Your task to perform on an android device: check android version Image 0: 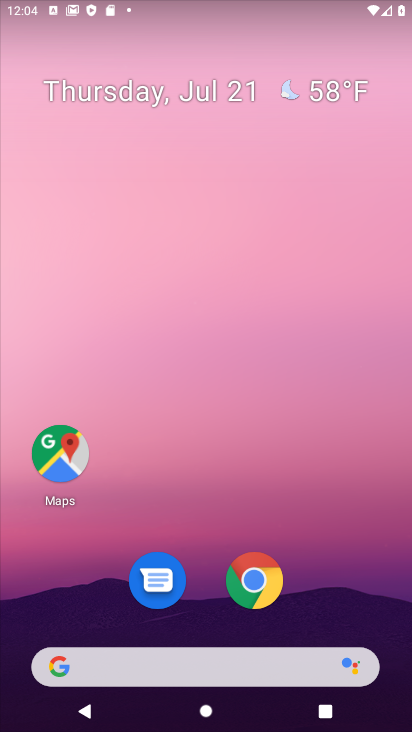
Step 0: drag from (336, 607) to (246, 1)
Your task to perform on an android device: check android version Image 1: 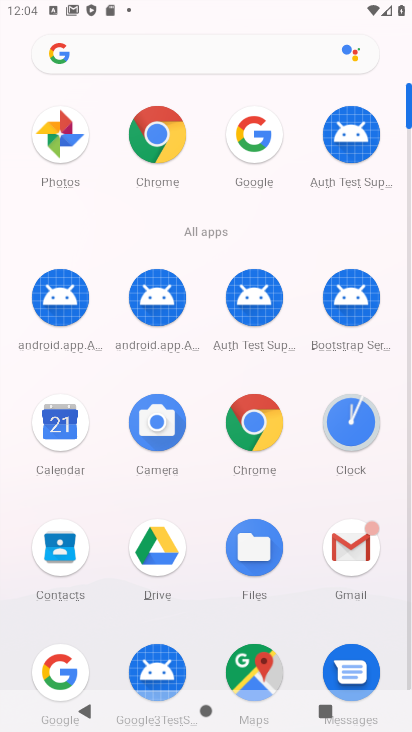
Step 1: drag from (309, 597) to (294, 106)
Your task to perform on an android device: check android version Image 2: 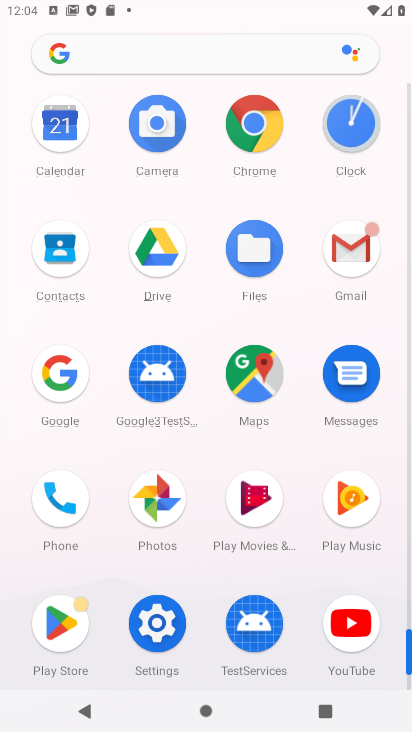
Step 2: click (144, 648)
Your task to perform on an android device: check android version Image 3: 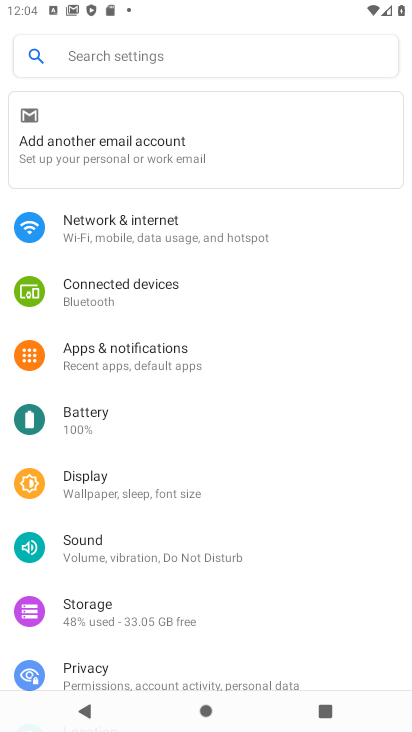
Step 3: drag from (206, 534) to (168, 36)
Your task to perform on an android device: check android version Image 4: 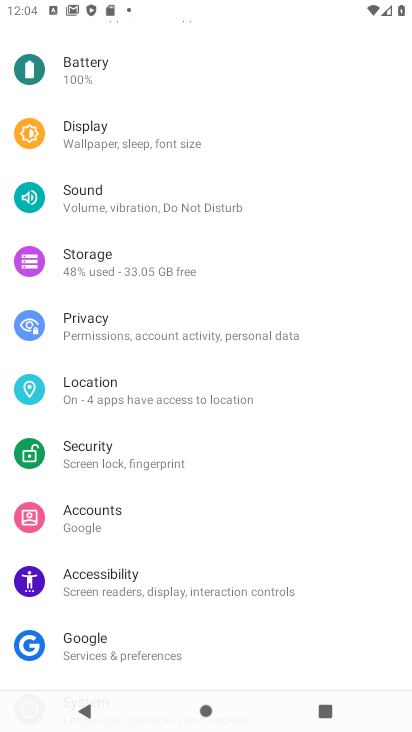
Step 4: drag from (112, 542) to (103, 108)
Your task to perform on an android device: check android version Image 5: 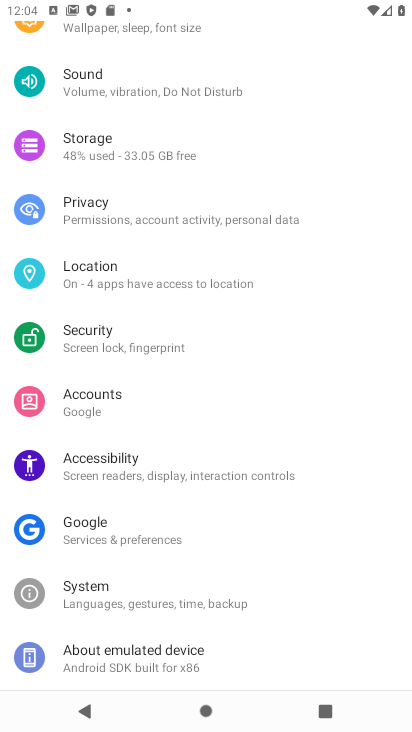
Step 5: click (100, 657)
Your task to perform on an android device: check android version Image 6: 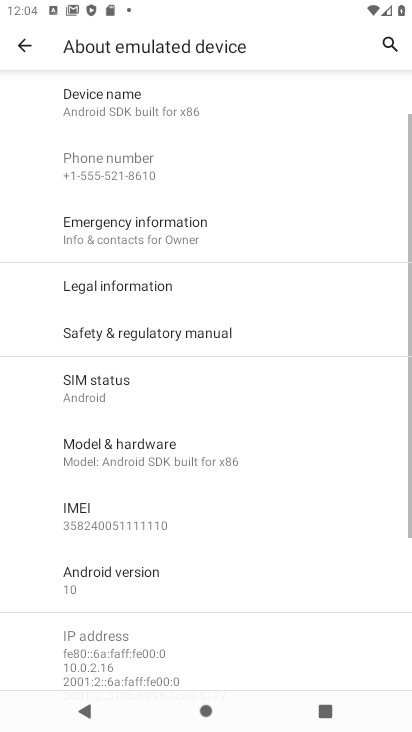
Step 6: click (130, 574)
Your task to perform on an android device: check android version Image 7: 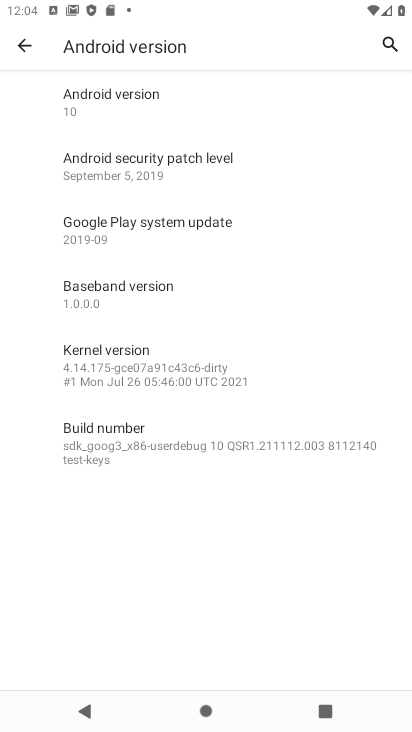
Step 7: task complete